Your task to perform on an android device: turn off notifications settings in the gmail app Image 0: 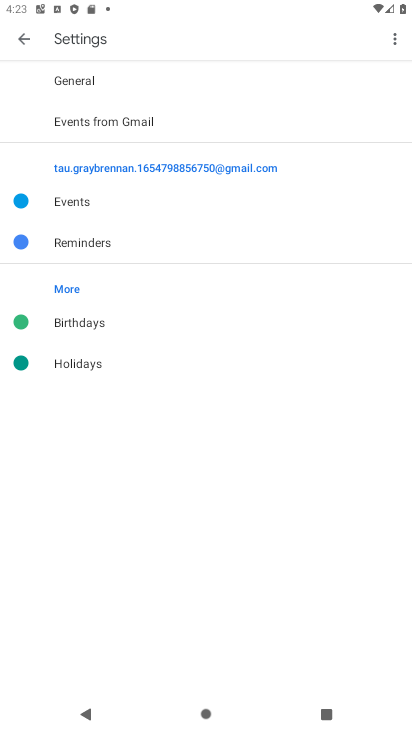
Step 0: press home button
Your task to perform on an android device: turn off notifications settings in the gmail app Image 1: 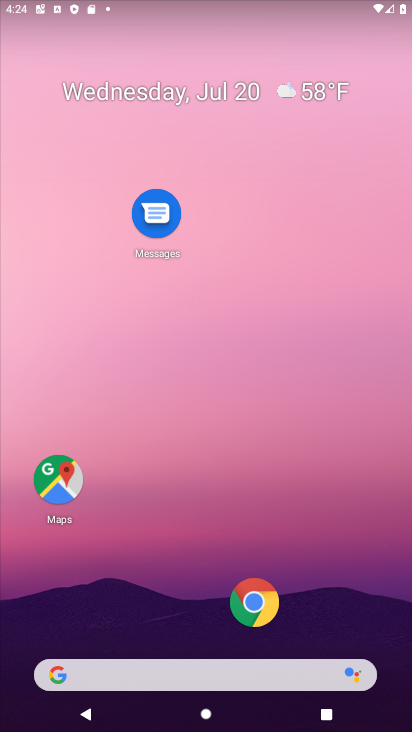
Step 1: drag from (209, 473) to (209, 33)
Your task to perform on an android device: turn off notifications settings in the gmail app Image 2: 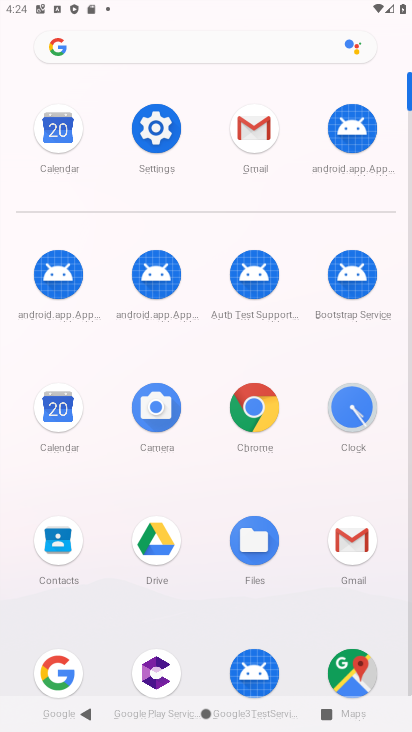
Step 2: click (256, 138)
Your task to perform on an android device: turn off notifications settings in the gmail app Image 3: 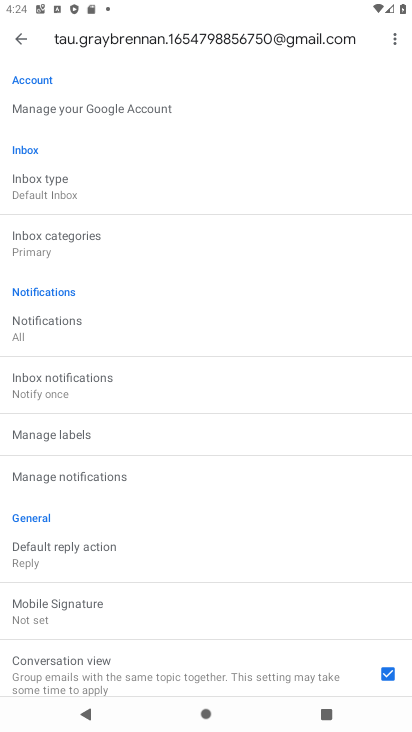
Step 3: drag from (106, 342) to (43, 577)
Your task to perform on an android device: turn off notifications settings in the gmail app Image 4: 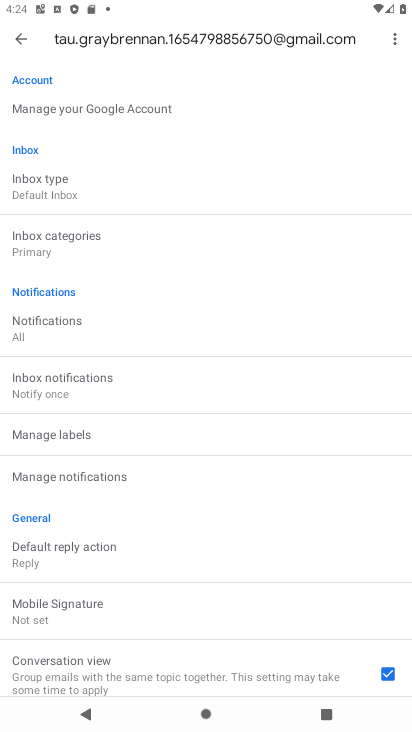
Step 4: drag from (95, 519) to (121, 158)
Your task to perform on an android device: turn off notifications settings in the gmail app Image 5: 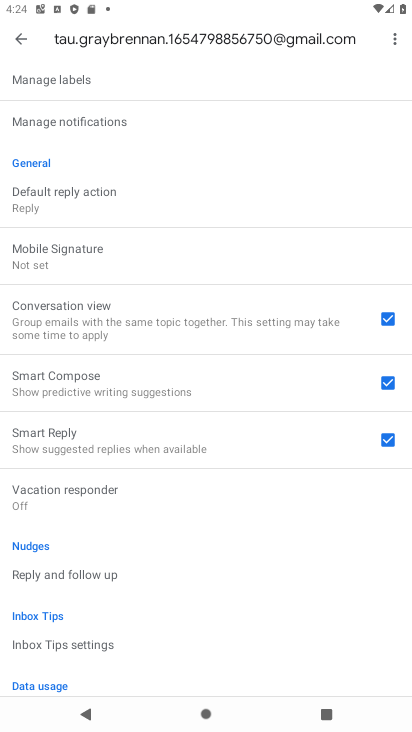
Step 5: drag from (65, 212) to (46, 528)
Your task to perform on an android device: turn off notifications settings in the gmail app Image 6: 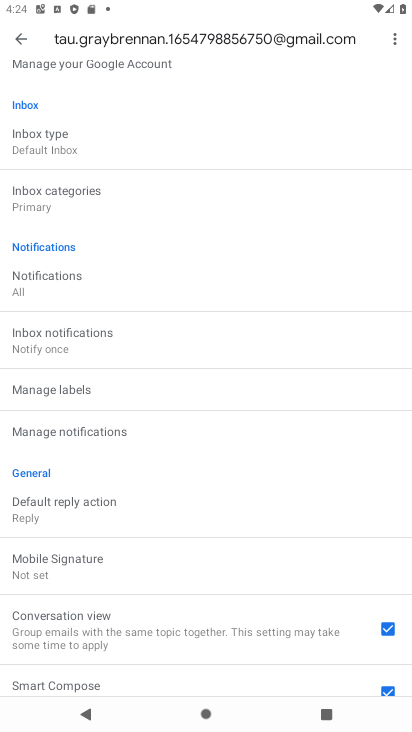
Step 6: click (70, 431)
Your task to perform on an android device: turn off notifications settings in the gmail app Image 7: 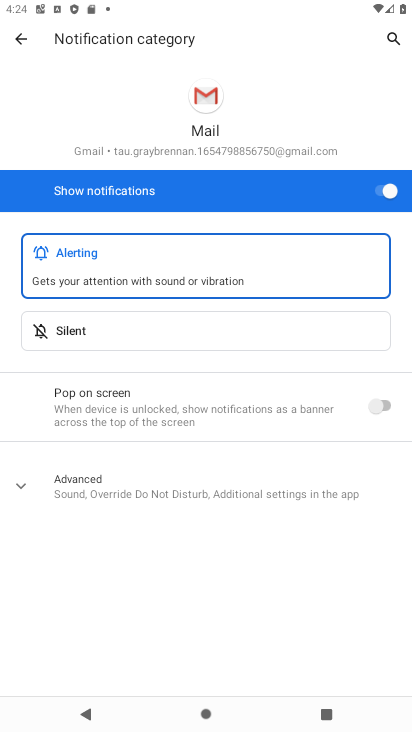
Step 7: click (380, 187)
Your task to perform on an android device: turn off notifications settings in the gmail app Image 8: 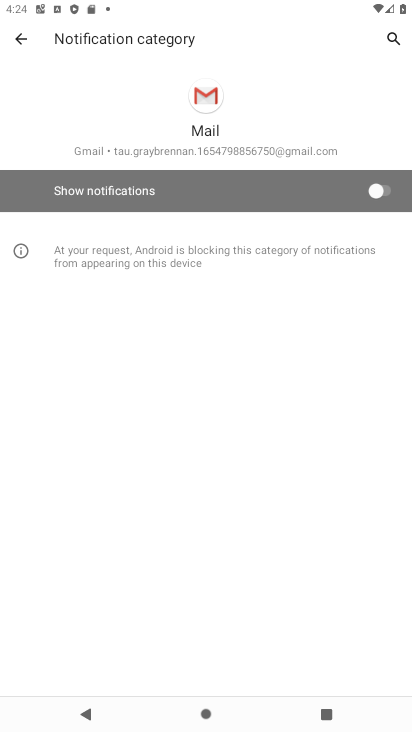
Step 8: task complete